Your task to perform on an android device: open sync settings in chrome Image 0: 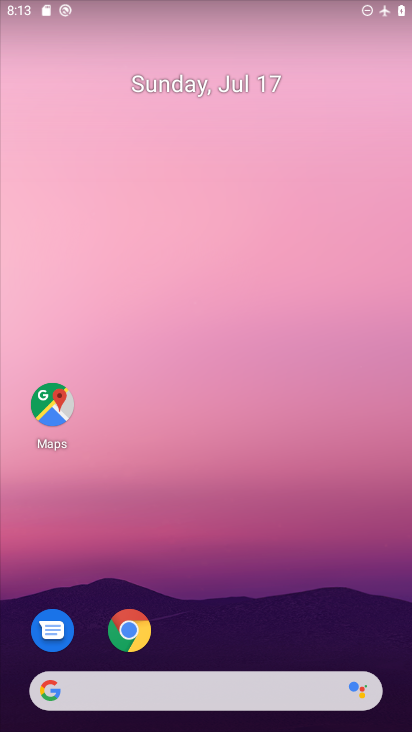
Step 0: drag from (261, 641) to (253, 130)
Your task to perform on an android device: open sync settings in chrome Image 1: 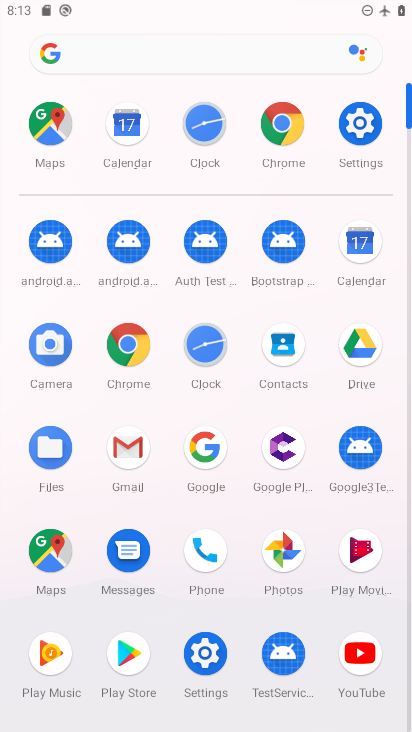
Step 1: click (362, 106)
Your task to perform on an android device: open sync settings in chrome Image 2: 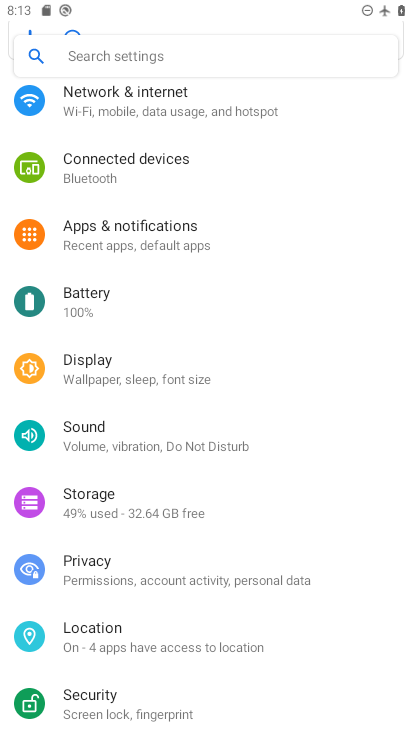
Step 2: press home button
Your task to perform on an android device: open sync settings in chrome Image 3: 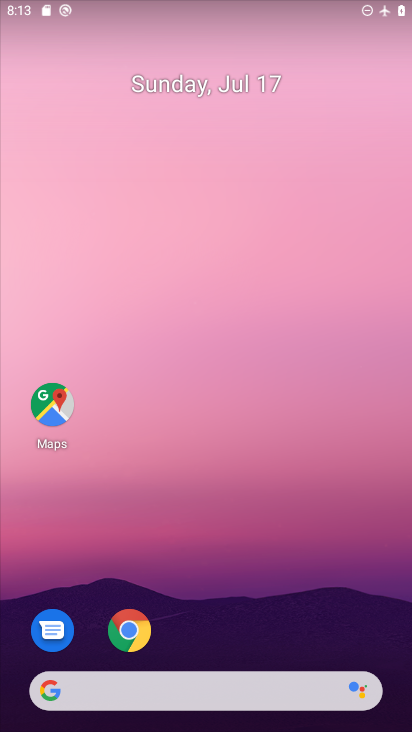
Step 3: drag from (220, 677) to (266, 172)
Your task to perform on an android device: open sync settings in chrome Image 4: 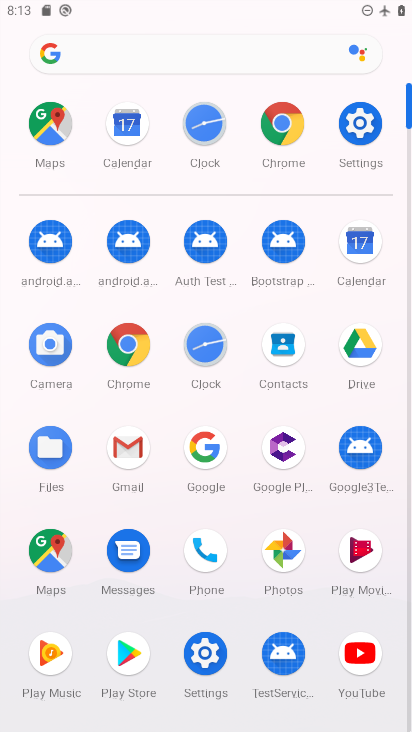
Step 4: click (277, 114)
Your task to perform on an android device: open sync settings in chrome Image 5: 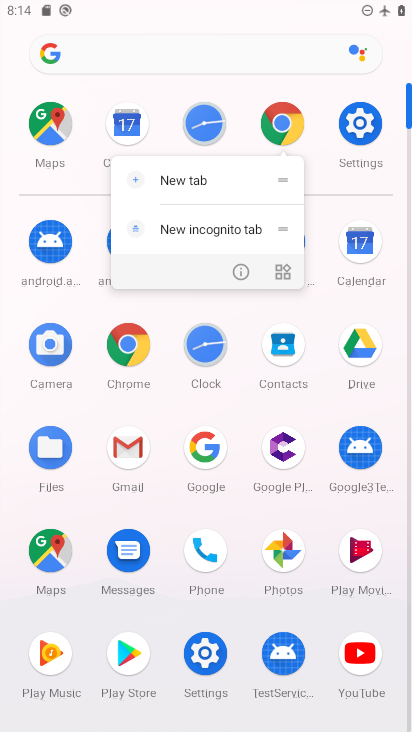
Step 5: click (287, 121)
Your task to perform on an android device: open sync settings in chrome Image 6: 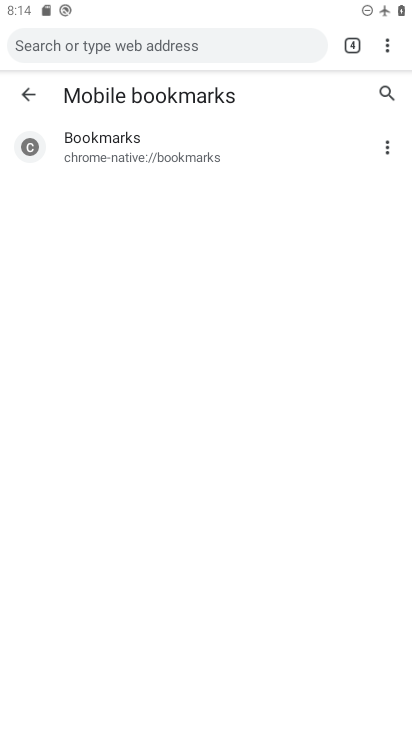
Step 6: click (388, 40)
Your task to perform on an android device: open sync settings in chrome Image 7: 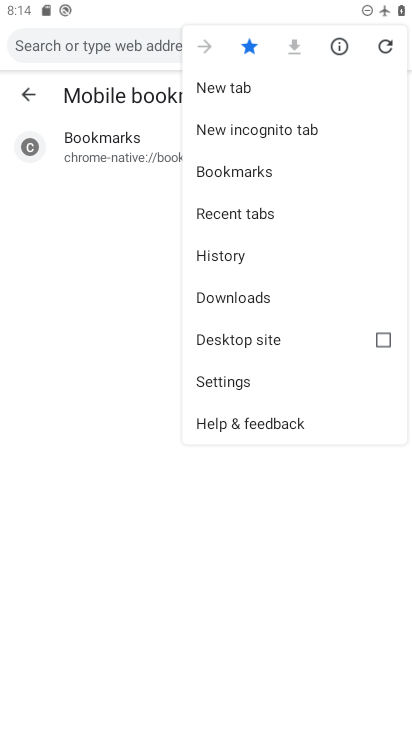
Step 7: click (247, 390)
Your task to perform on an android device: open sync settings in chrome Image 8: 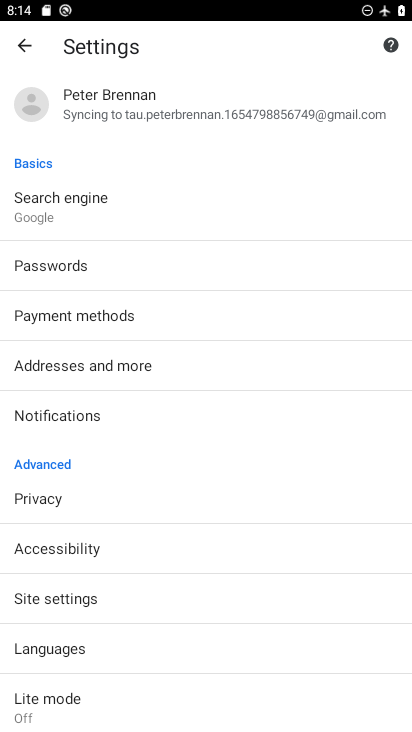
Step 8: click (174, 108)
Your task to perform on an android device: open sync settings in chrome Image 9: 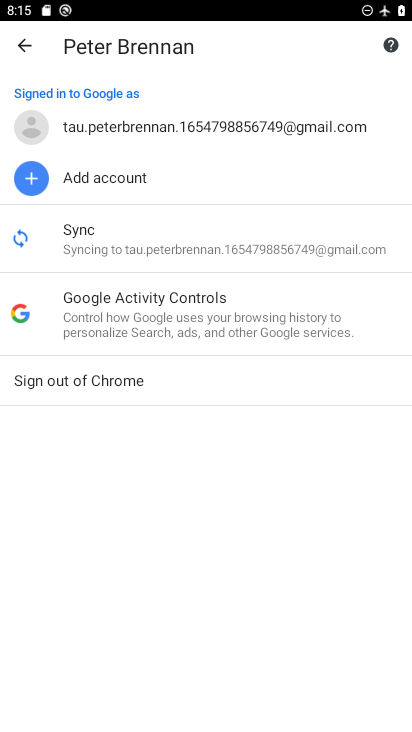
Step 9: task complete